Your task to perform on an android device: Open settings on Google Maps Image 0: 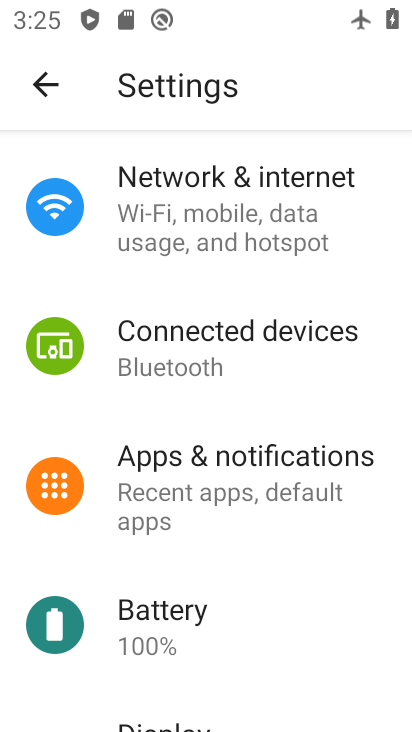
Step 0: press back button
Your task to perform on an android device: Open settings on Google Maps Image 1: 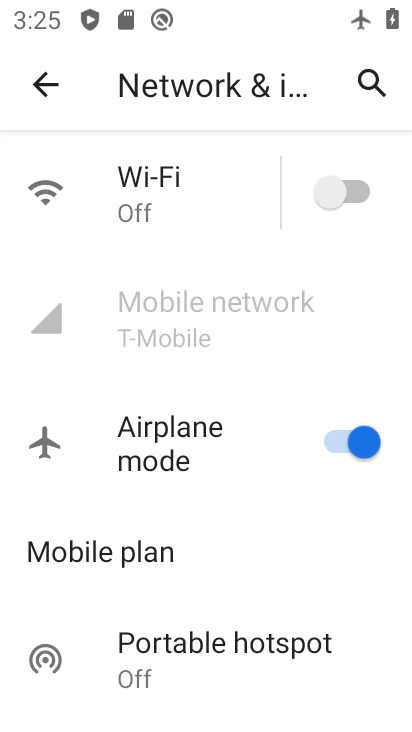
Step 1: press back button
Your task to perform on an android device: Open settings on Google Maps Image 2: 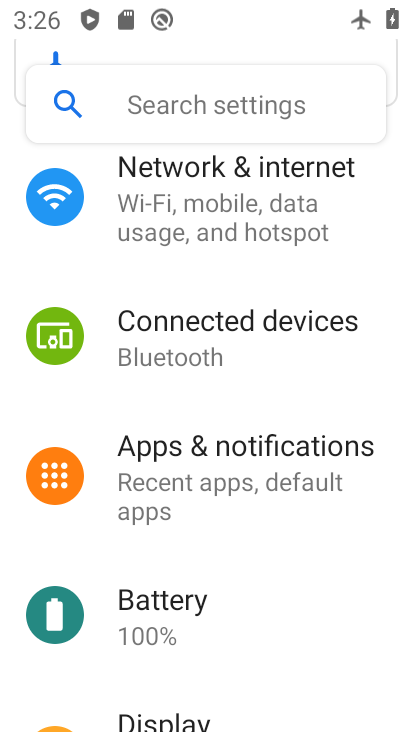
Step 2: press home button
Your task to perform on an android device: Open settings on Google Maps Image 3: 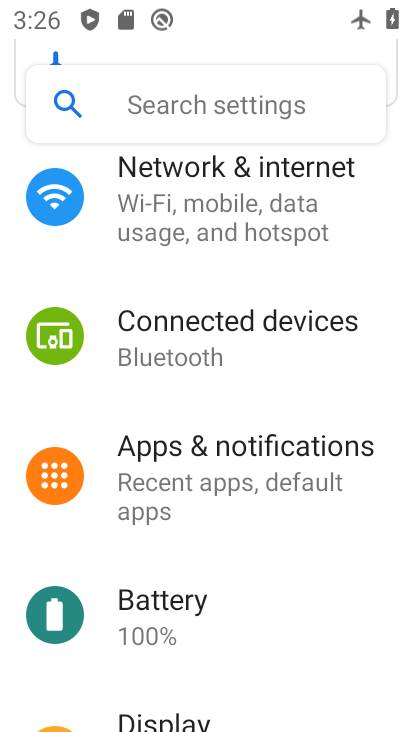
Step 3: press home button
Your task to perform on an android device: Open settings on Google Maps Image 4: 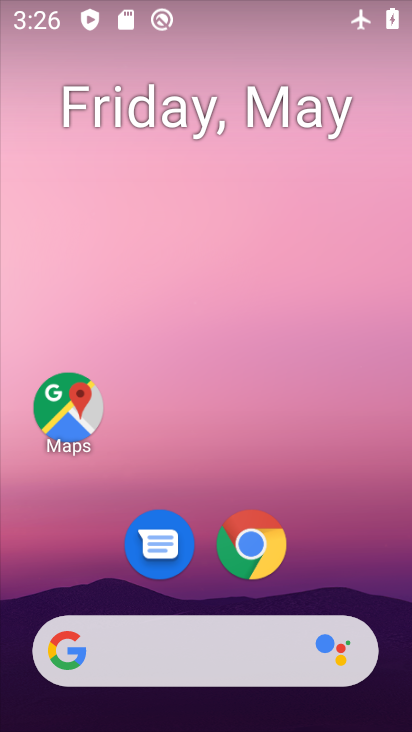
Step 4: drag from (359, 690) to (186, 75)
Your task to perform on an android device: Open settings on Google Maps Image 5: 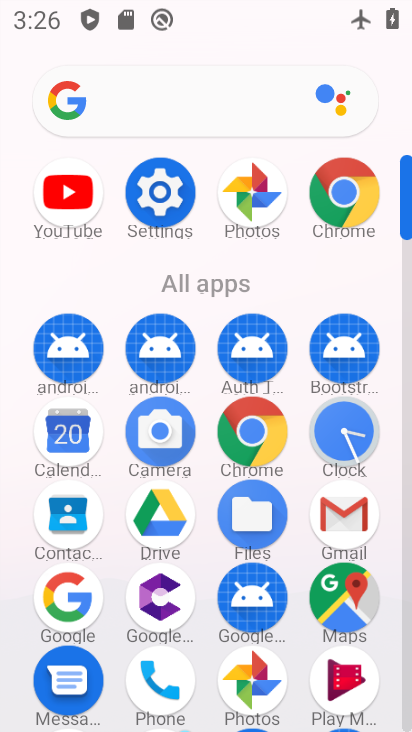
Step 5: click (335, 595)
Your task to perform on an android device: Open settings on Google Maps Image 6: 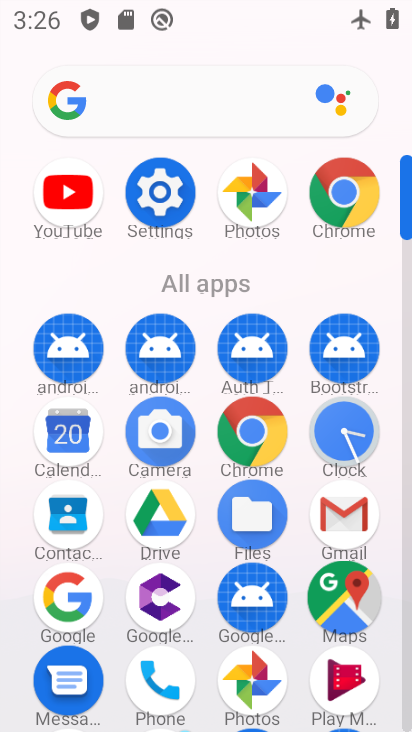
Step 6: click (349, 593)
Your task to perform on an android device: Open settings on Google Maps Image 7: 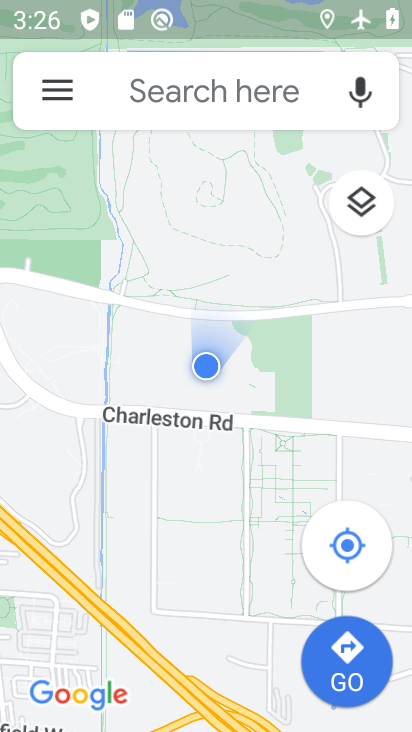
Step 7: click (62, 89)
Your task to perform on an android device: Open settings on Google Maps Image 8: 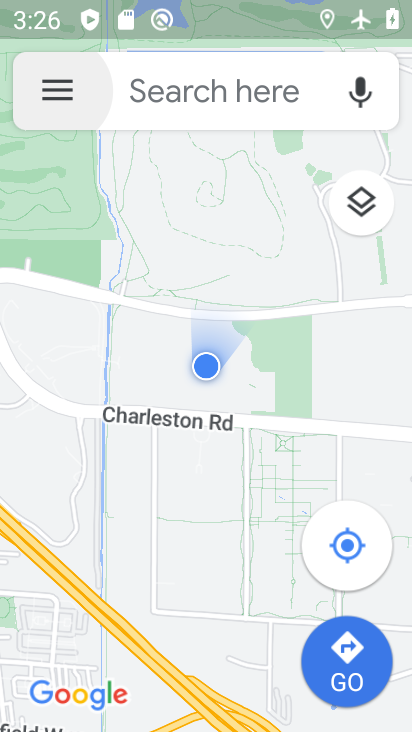
Step 8: click (61, 90)
Your task to perform on an android device: Open settings on Google Maps Image 9: 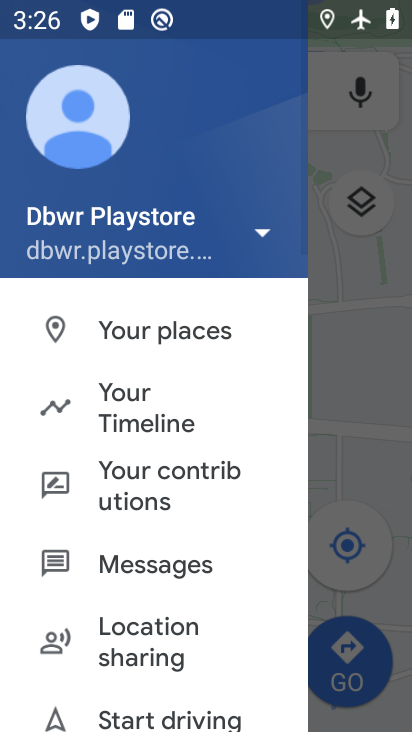
Step 9: click (152, 427)
Your task to perform on an android device: Open settings on Google Maps Image 10: 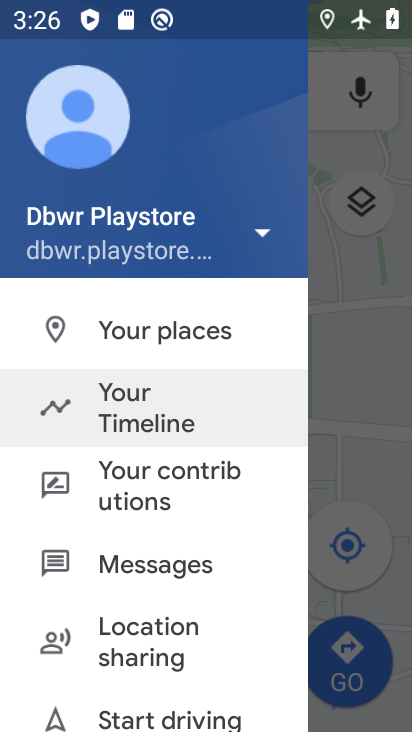
Step 10: click (151, 425)
Your task to perform on an android device: Open settings on Google Maps Image 11: 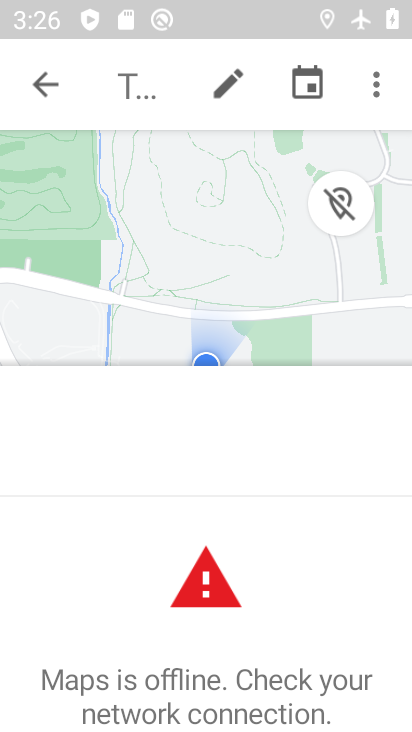
Step 11: task complete